Your task to perform on an android device: install app "Facebook Lite" Image 0: 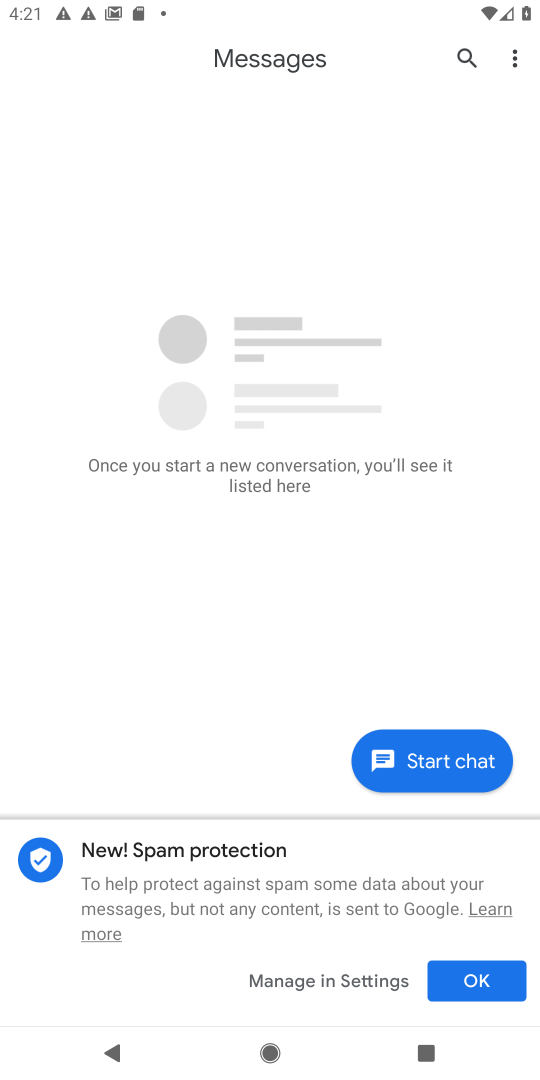
Step 0: press home button
Your task to perform on an android device: install app "Facebook Lite" Image 1: 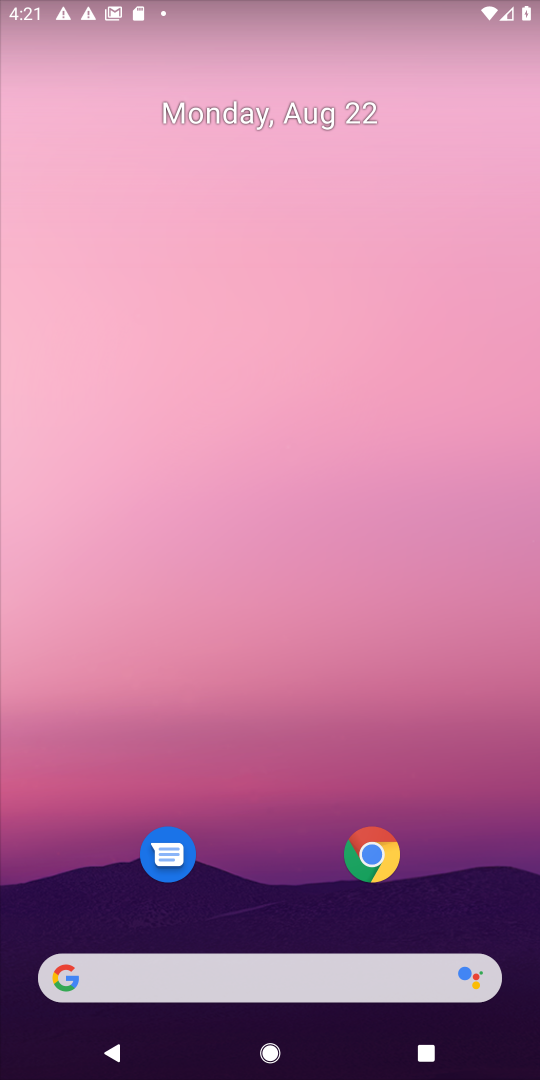
Step 1: drag from (227, 447) to (195, 29)
Your task to perform on an android device: install app "Facebook Lite" Image 2: 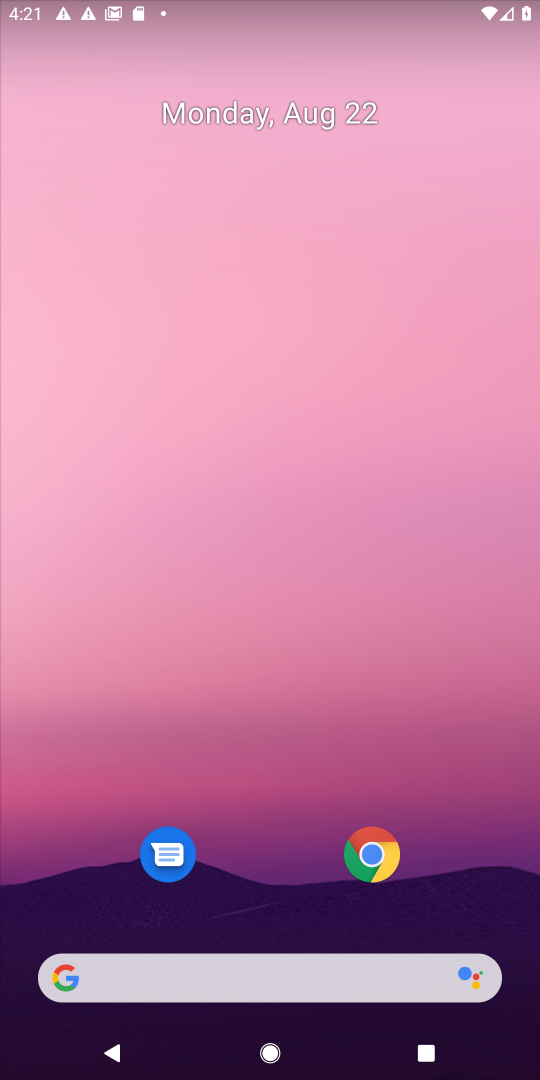
Step 2: drag from (253, 799) to (237, 90)
Your task to perform on an android device: install app "Facebook Lite" Image 3: 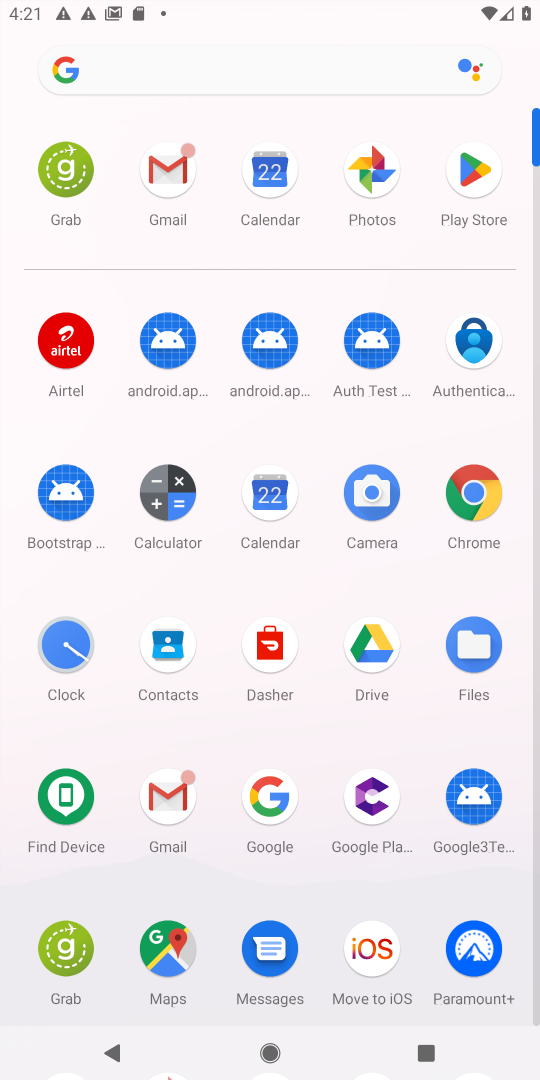
Step 3: click (472, 184)
Your task to perform on an android device: install app "Facebook Lite" Image 4: 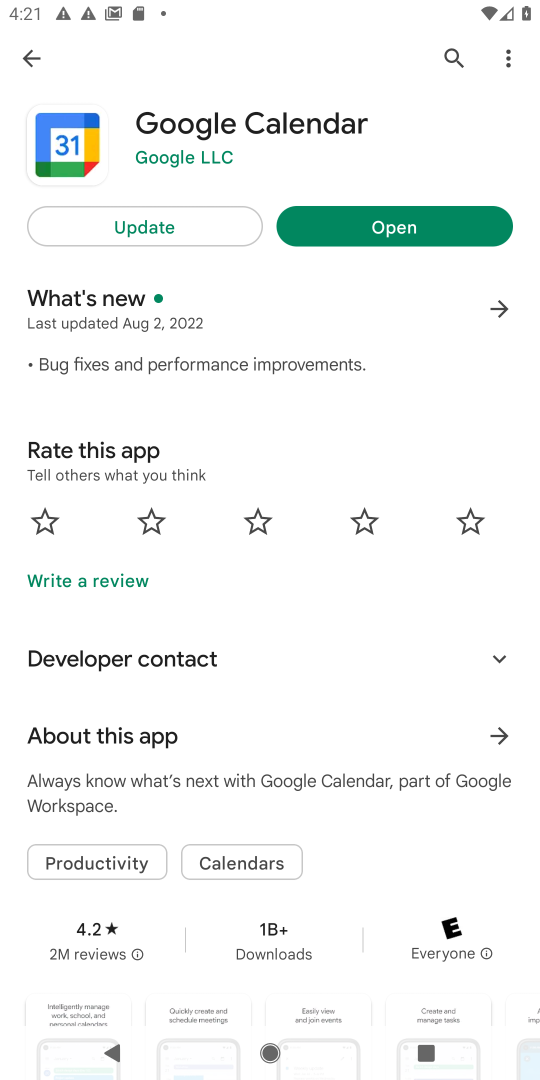
Step 4: click (449, 54)
Your task to perform on an android device: install app "Facebook Lite" Image 5: 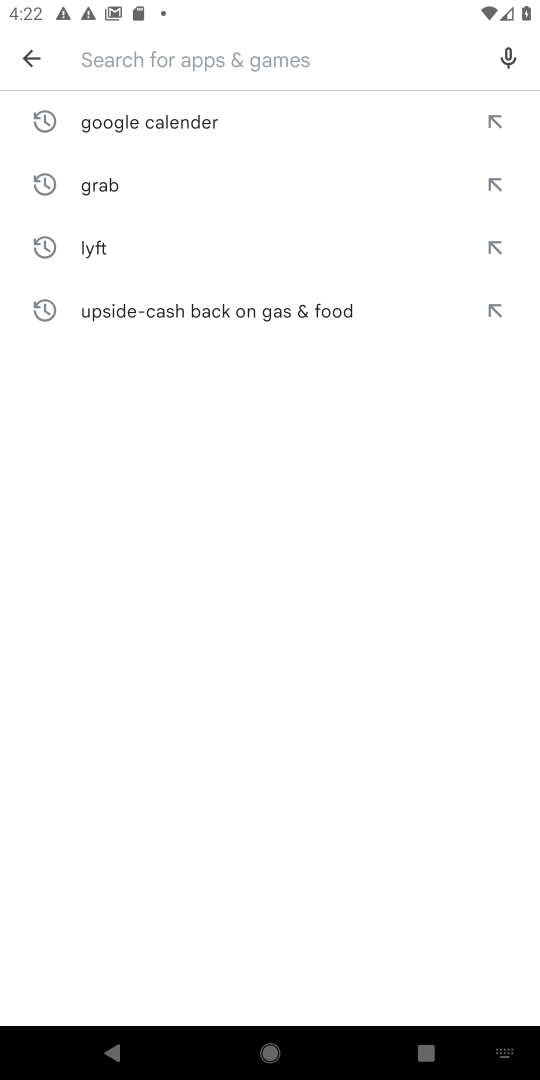
Step 5: type "Facebook Lite"
Your task to perform on an android device: install app "Facebook Lite" Image 6: 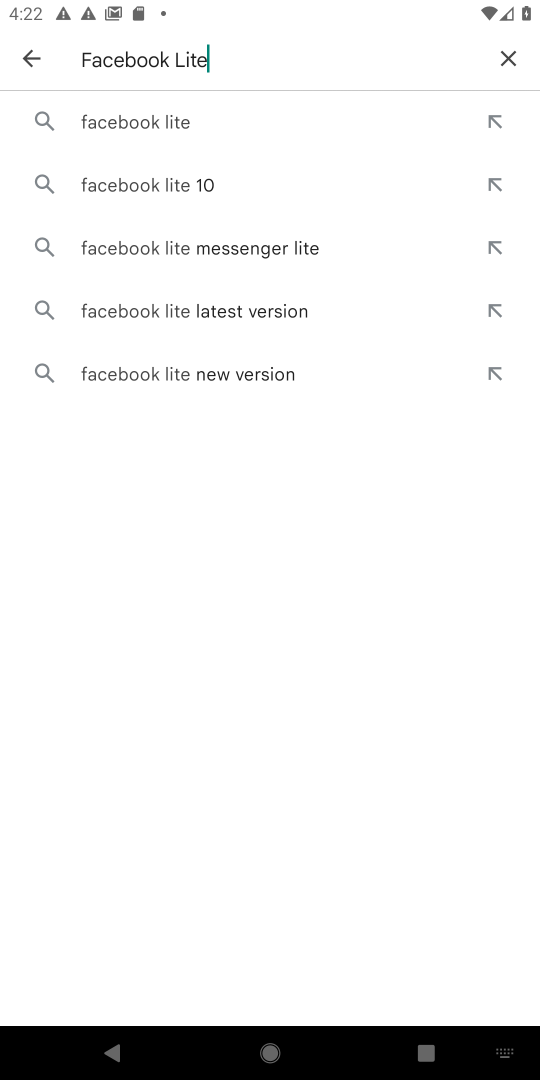
Step 6: click (91, 123)
Your task to perform on an android device: install app "Facebook Lite" Image 7: 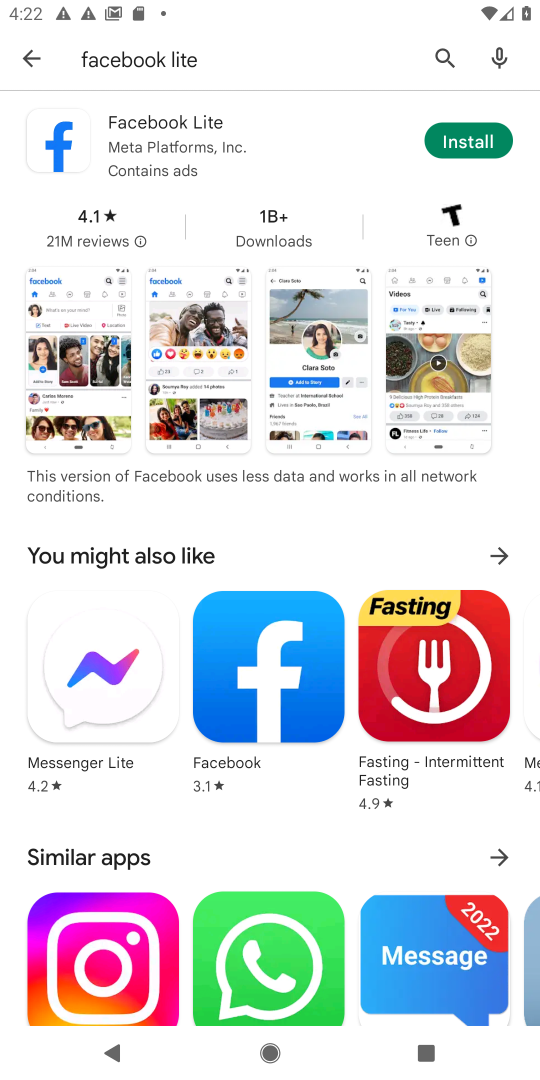
Step 7: click (490, 132)
Your task to perform on an android device: install app "Facebook Lite" Image 8: 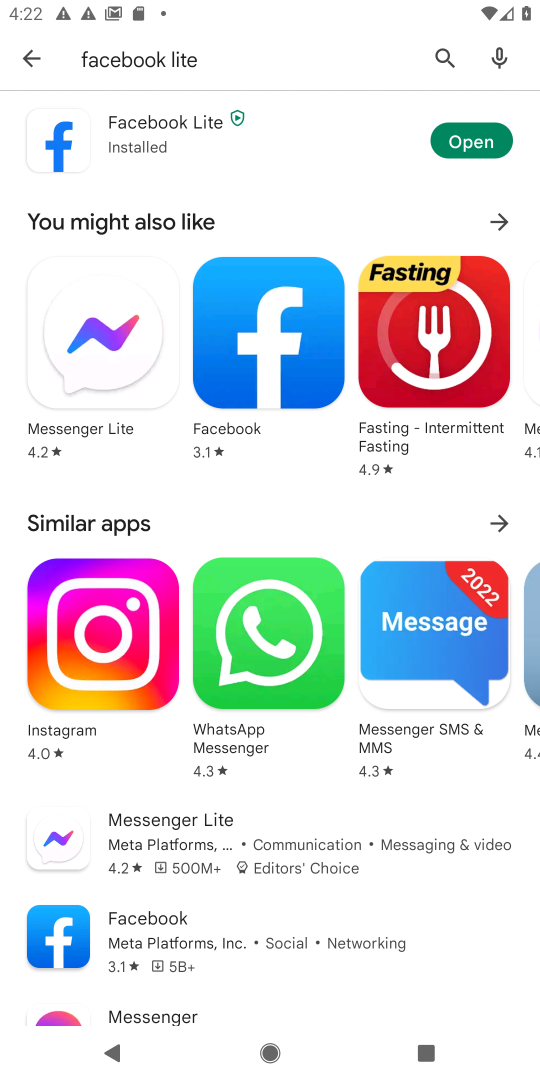
Step 8: task complete